Your task to perform on an android device: open app "Truecaller" (install if not already installed) Image 0: 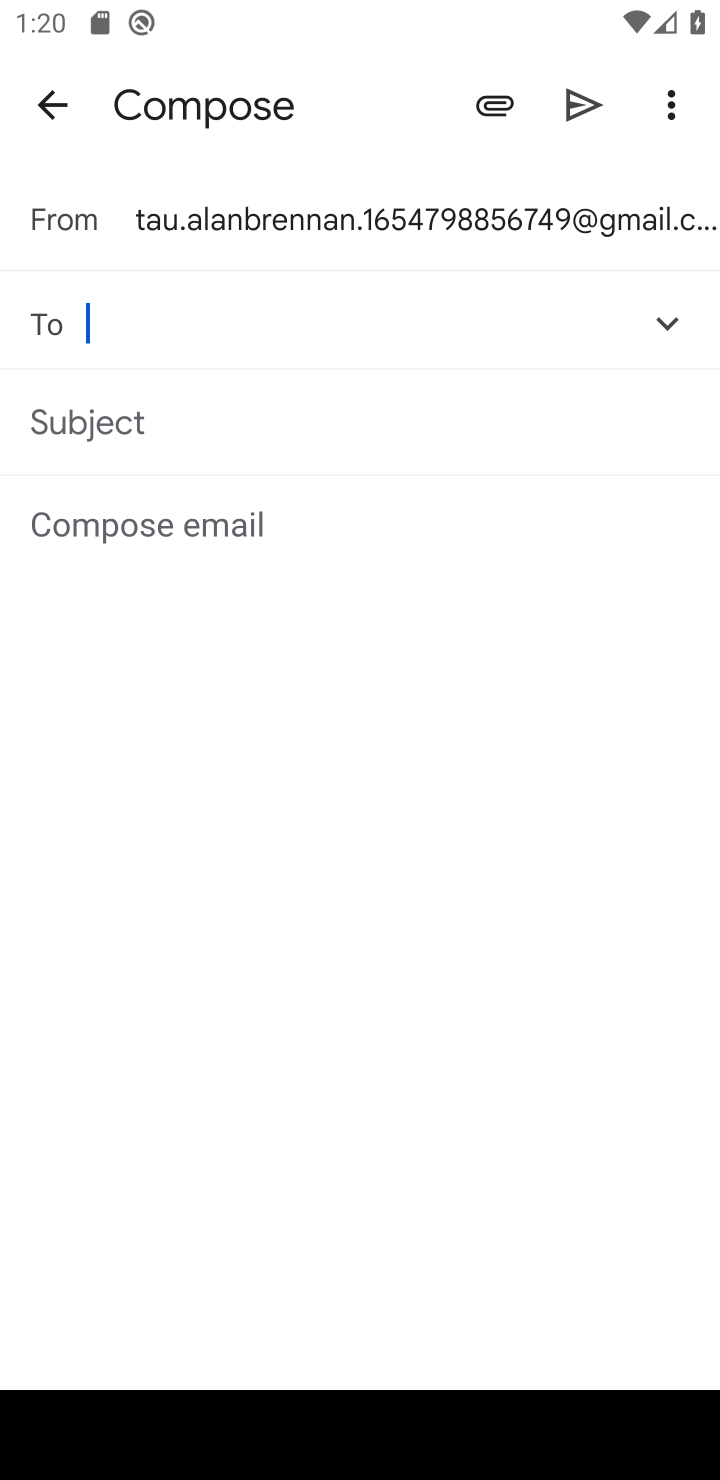
Step 0: press home button
Your task to perform on an android device: open app "Truecaller" (install if not already installed) Image 1: 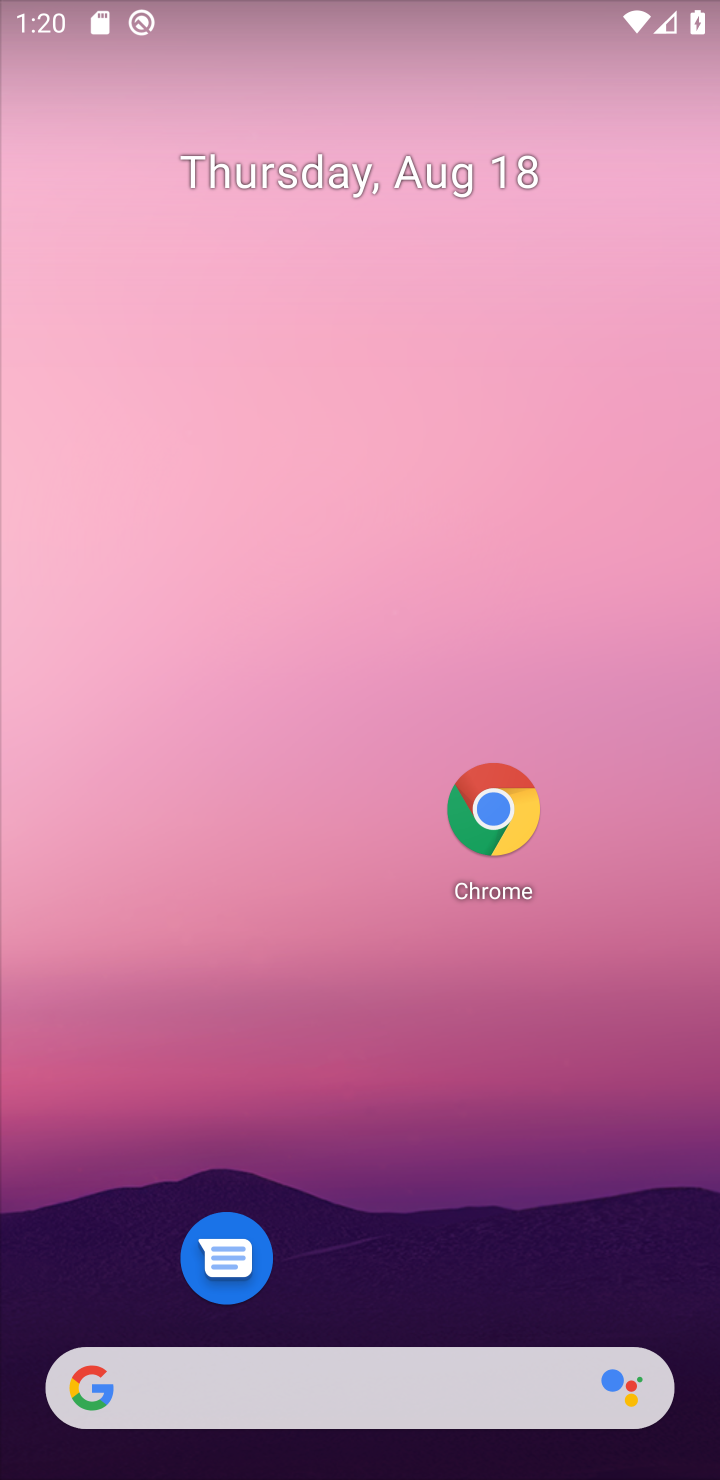
Step 1: drag from (394, 1176) to (417, 280)
Your task to perform on an android device: open app "Truecaller" (install if not already installed) Image 2: 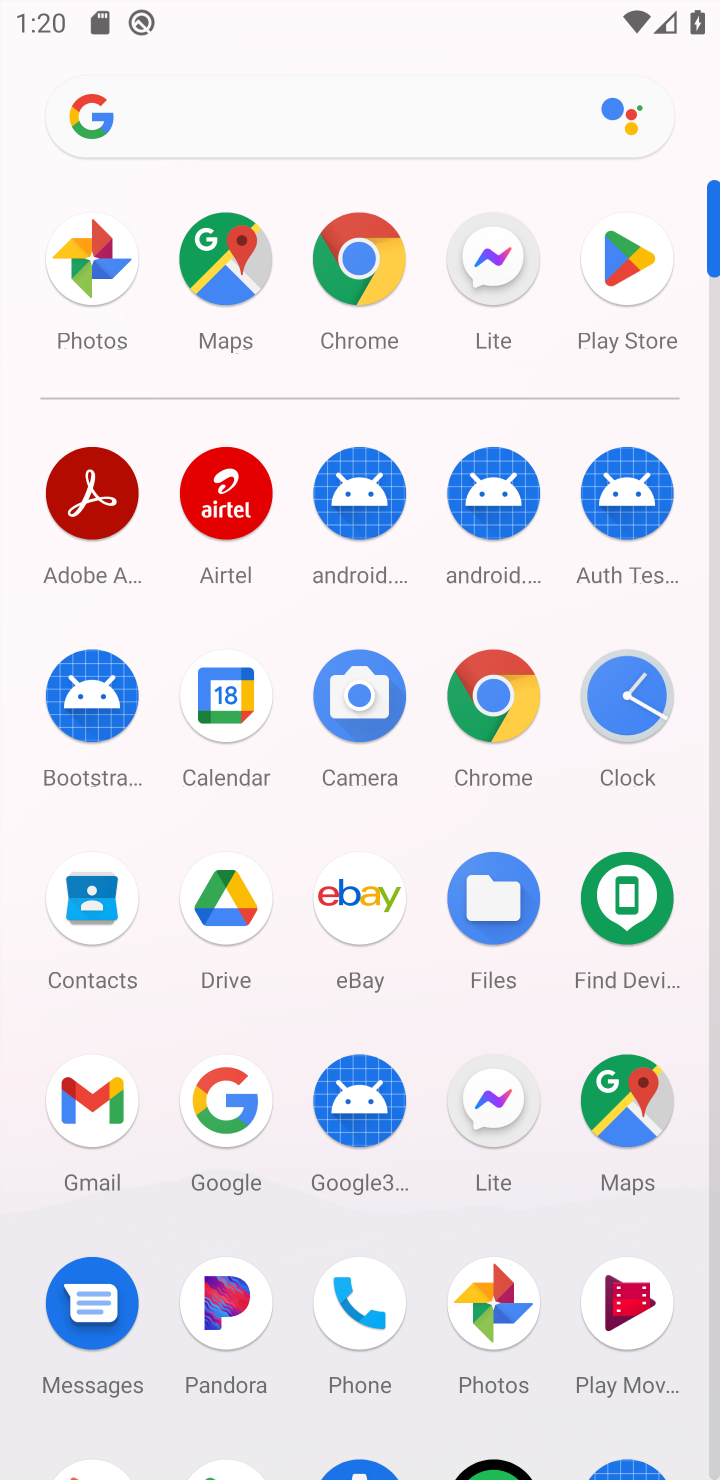
Step 2: click (636, 248)
Your task to perform on an android device: open app "Truecaller" (install if not already installed) Image 3: 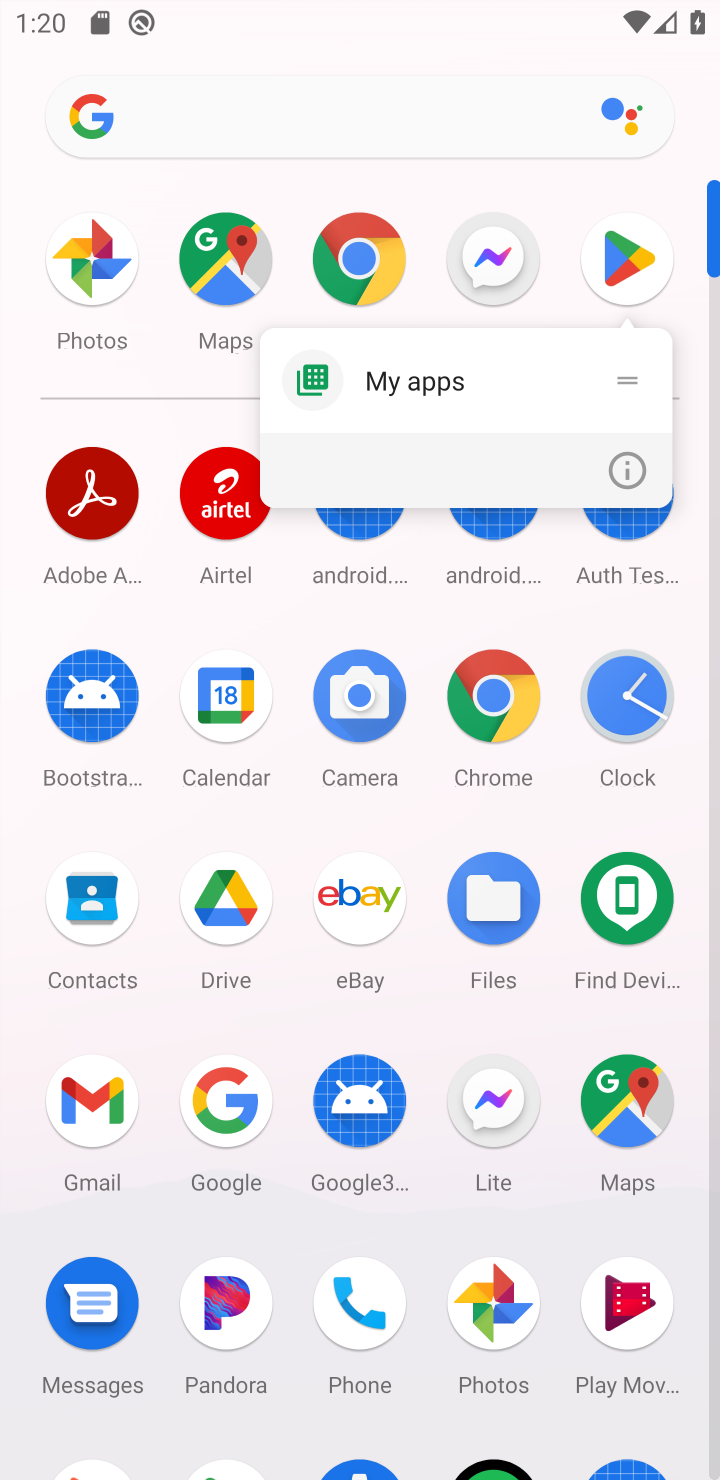
Step 3: click (617, 283)
Your task to perform on an android device: open app "Truecaller" (install if not already installed) Image 4: 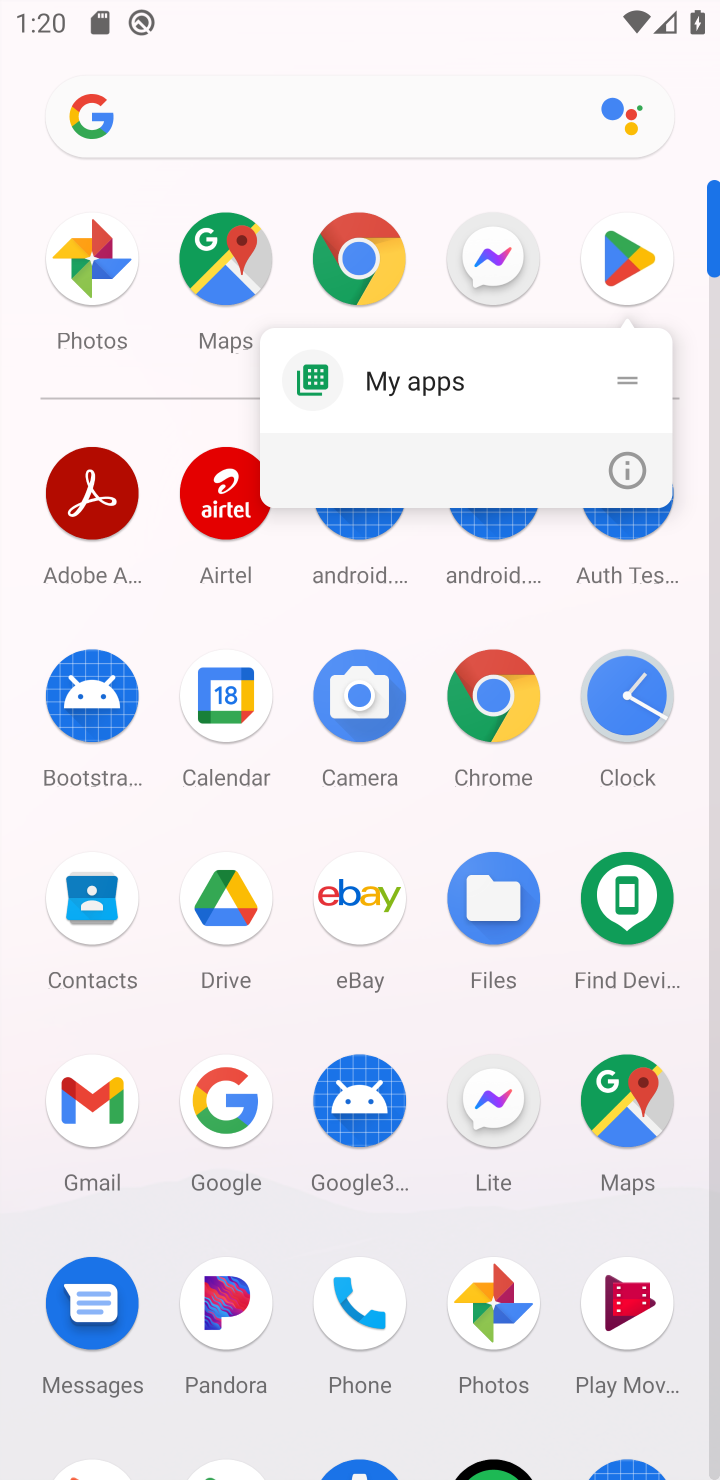
Step 4: drag from (259, 1326) to (324, 424)
Your task to perform on an android device: open app "Truecaller" (install if not already installed) Image 5: 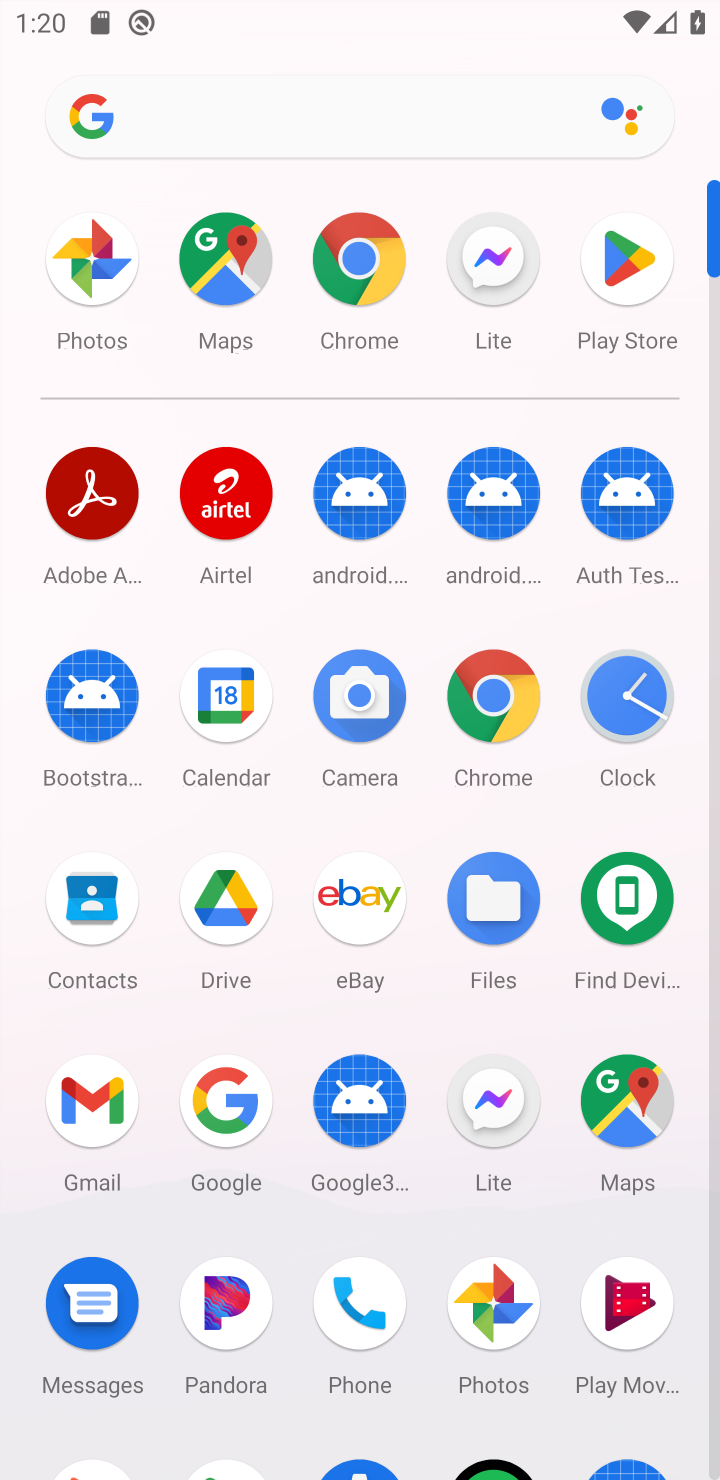
Step 5: drag from (291, 1294) to (314, 480)
Your task to perform on an android device: open app "Truecaller" (install if not already installed) Image 6: 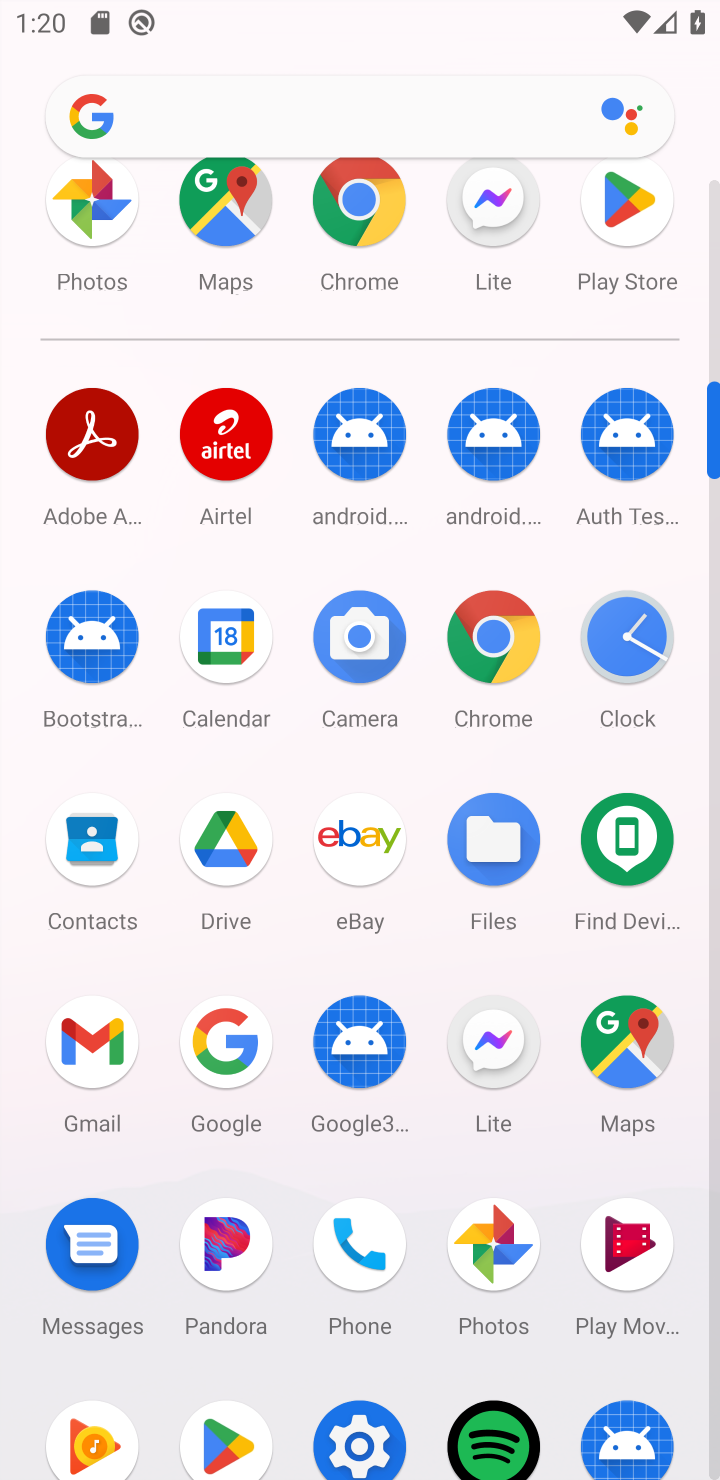
Step 6: click (202, 1445)
Your task to perform on an android device: open app "Truecaller" (install if not already installed) Image 7: 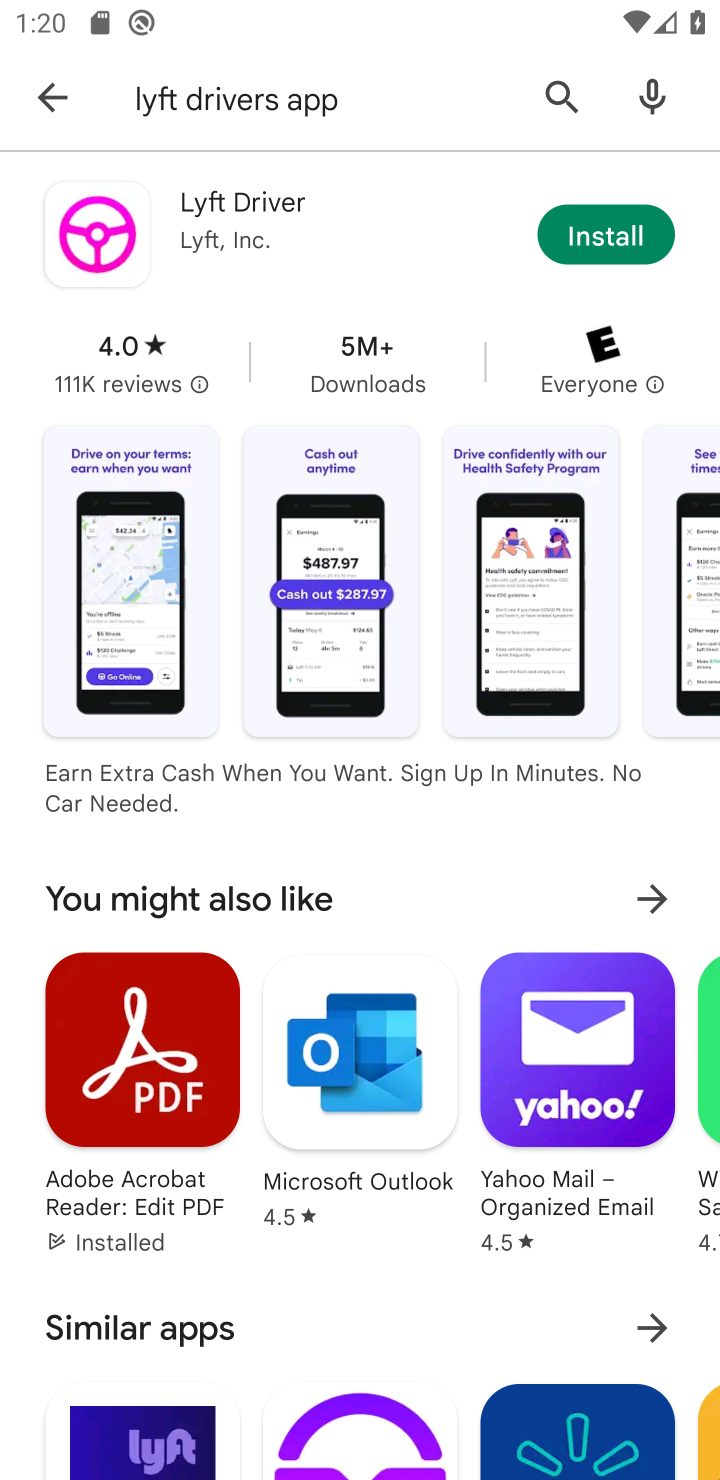
Step 7: click (43, 75)
Your task to perform on an android device: open app "Truecaller" (install if not already installed) Image 8: 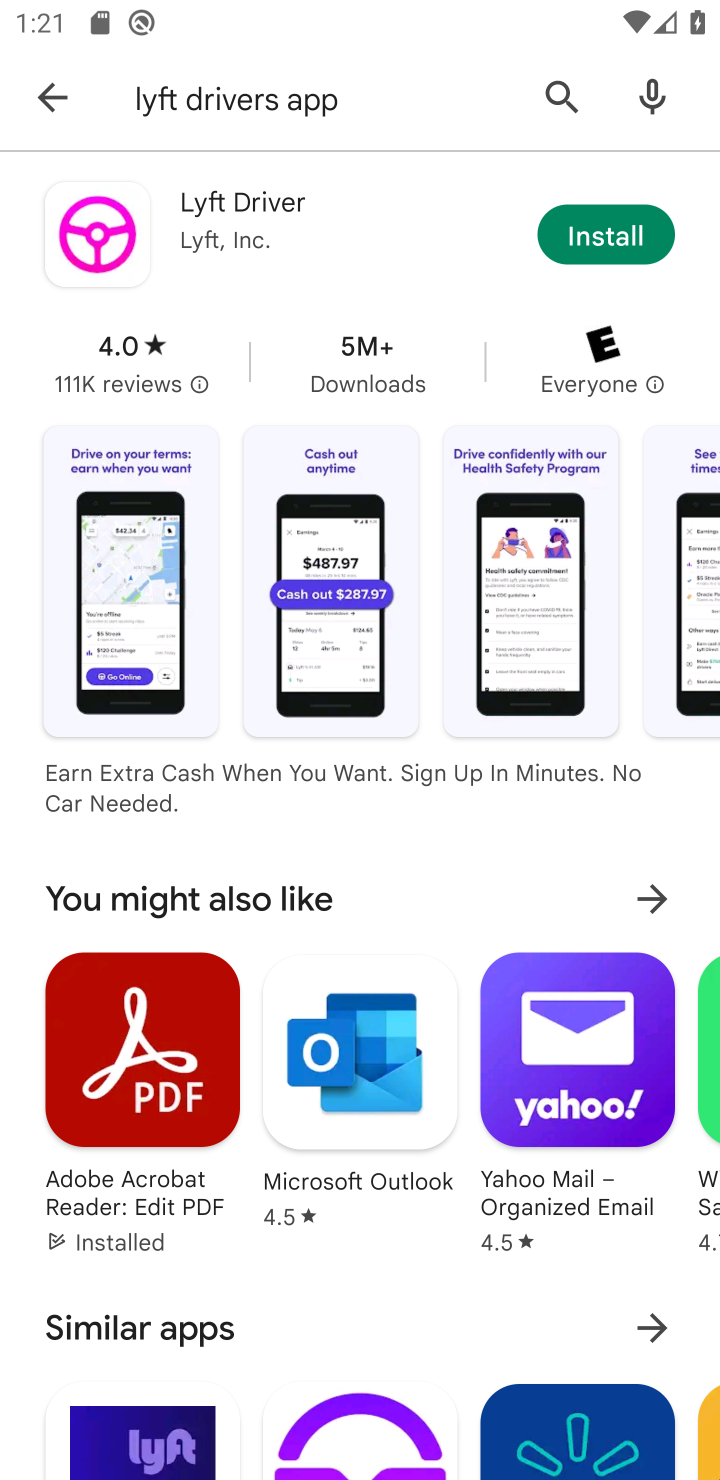
Step 8: click (564, 72)
Your task to perform on an android device: open app "Truecaller" (install if not already installed) Image 9: 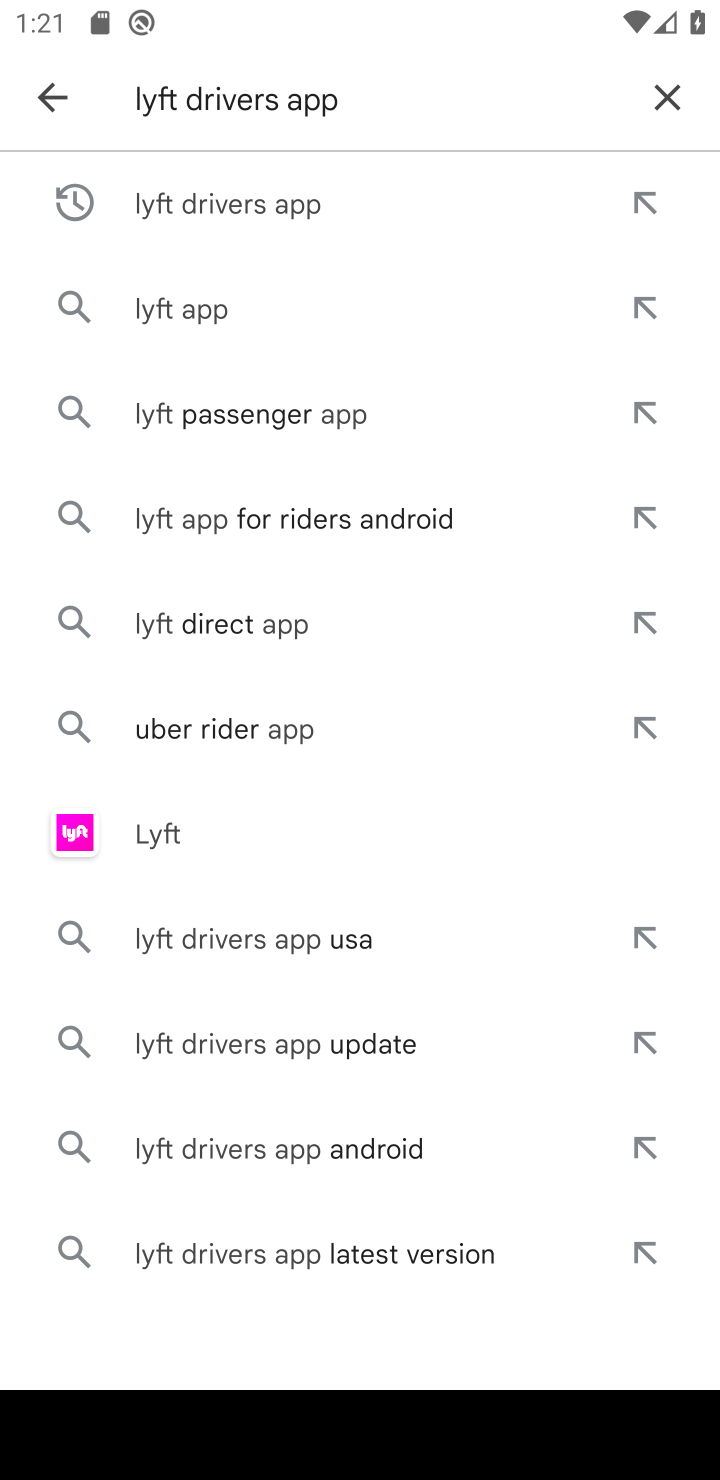
Step 9: click (645, 93)
Your task to perform on an android device: open app "Truecaller" (install if not already installed) Image 10: 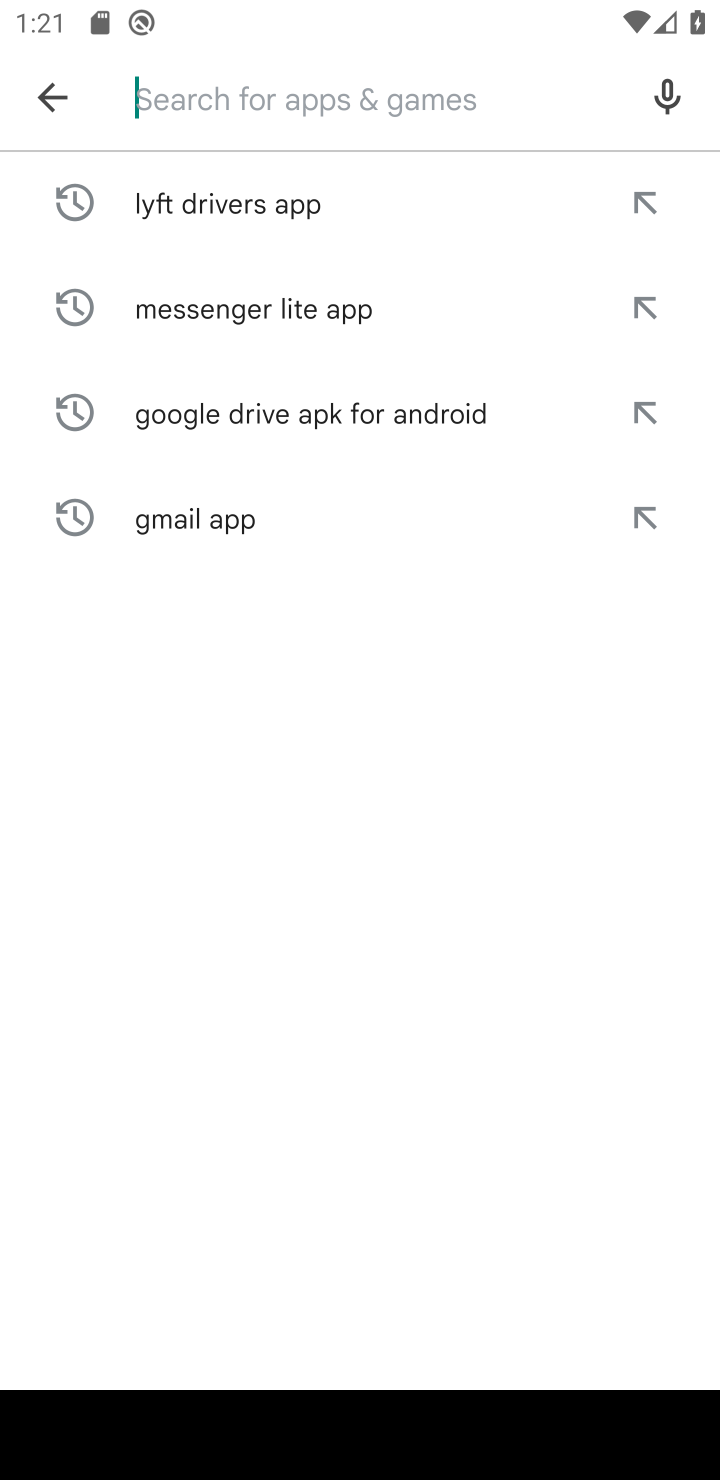
Step 10: click (374, 96)
Your task to perform on an android device: open app "Truecaller" (install if not already installed) Image 11: 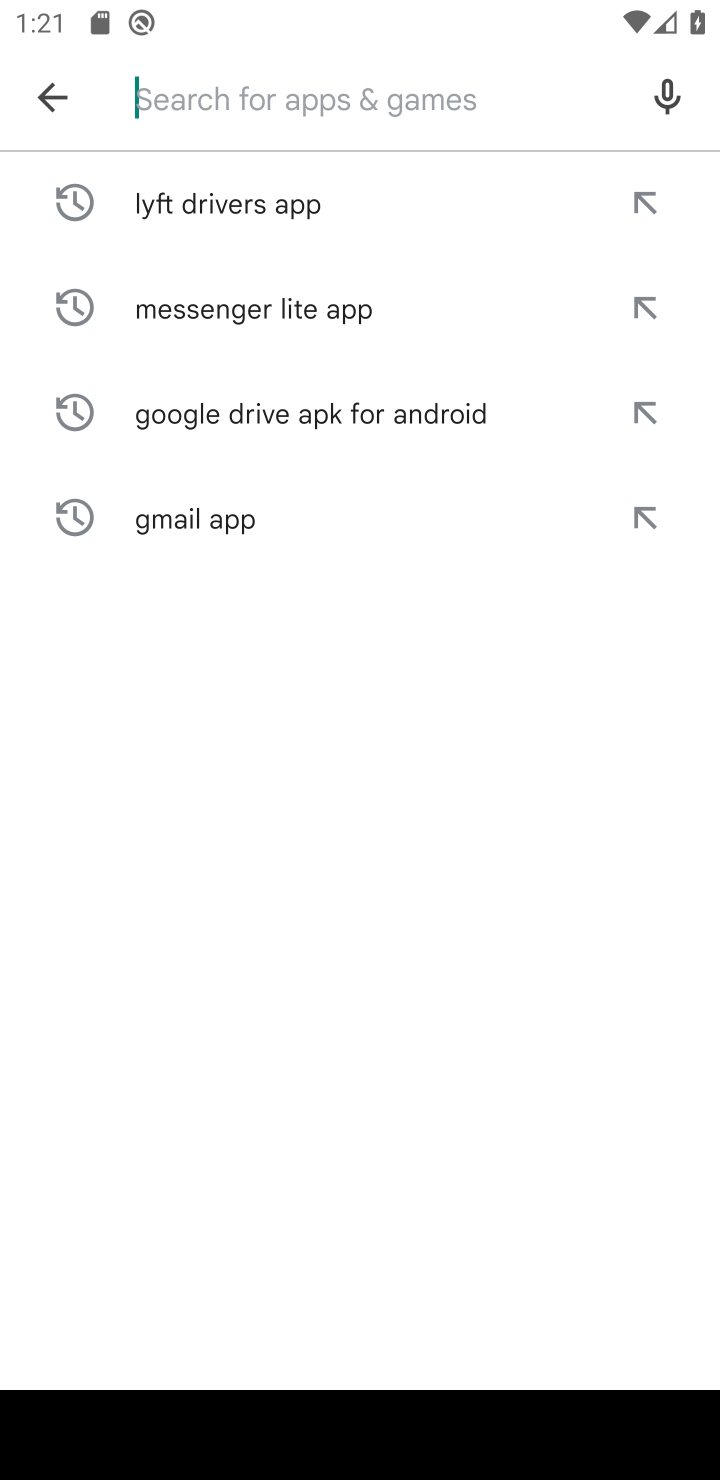
Step 11: type "Truecaller "
Your task to perform on an android device: open app "Truecaller" (install if not already installed) Image 12: 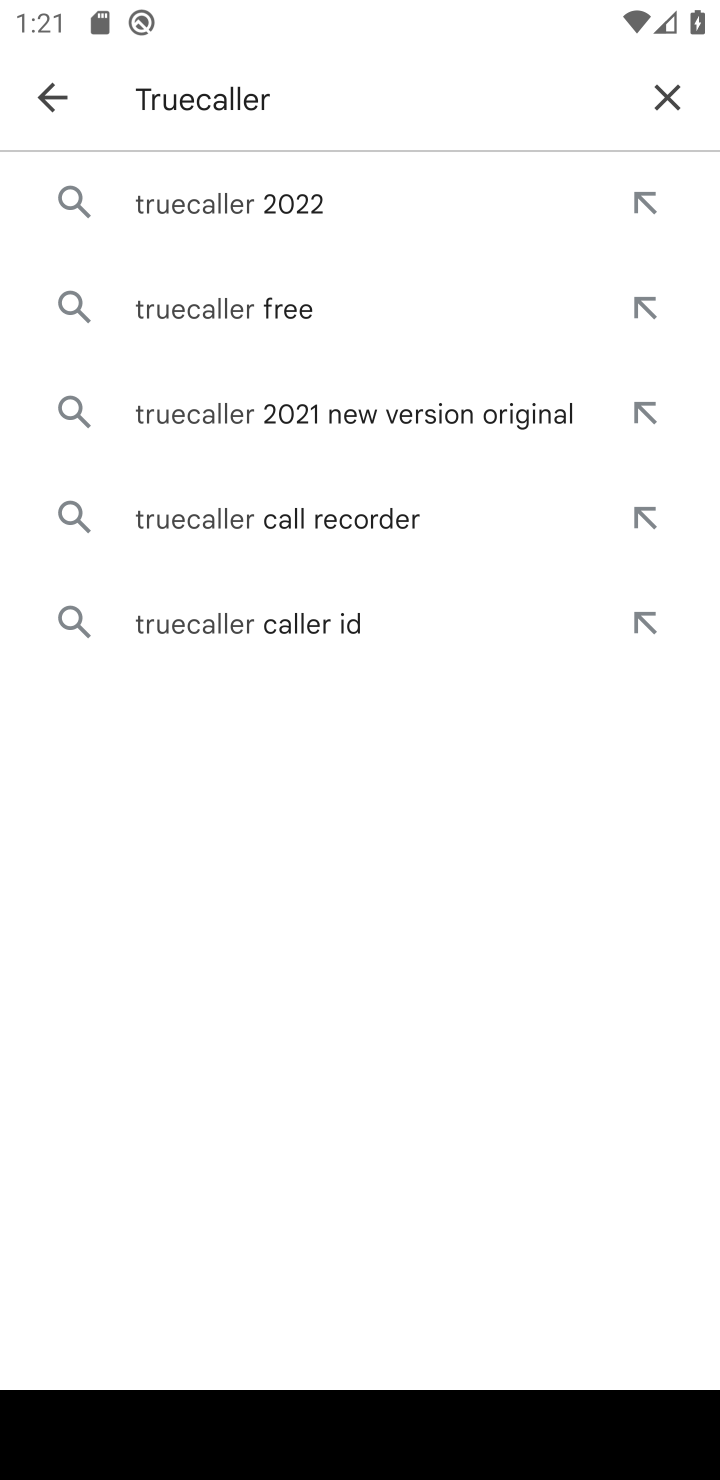
Step 12: click (219, 188)
Your task to perform on an android device: open app "Truecaller" (install if not already installed) Image 13: 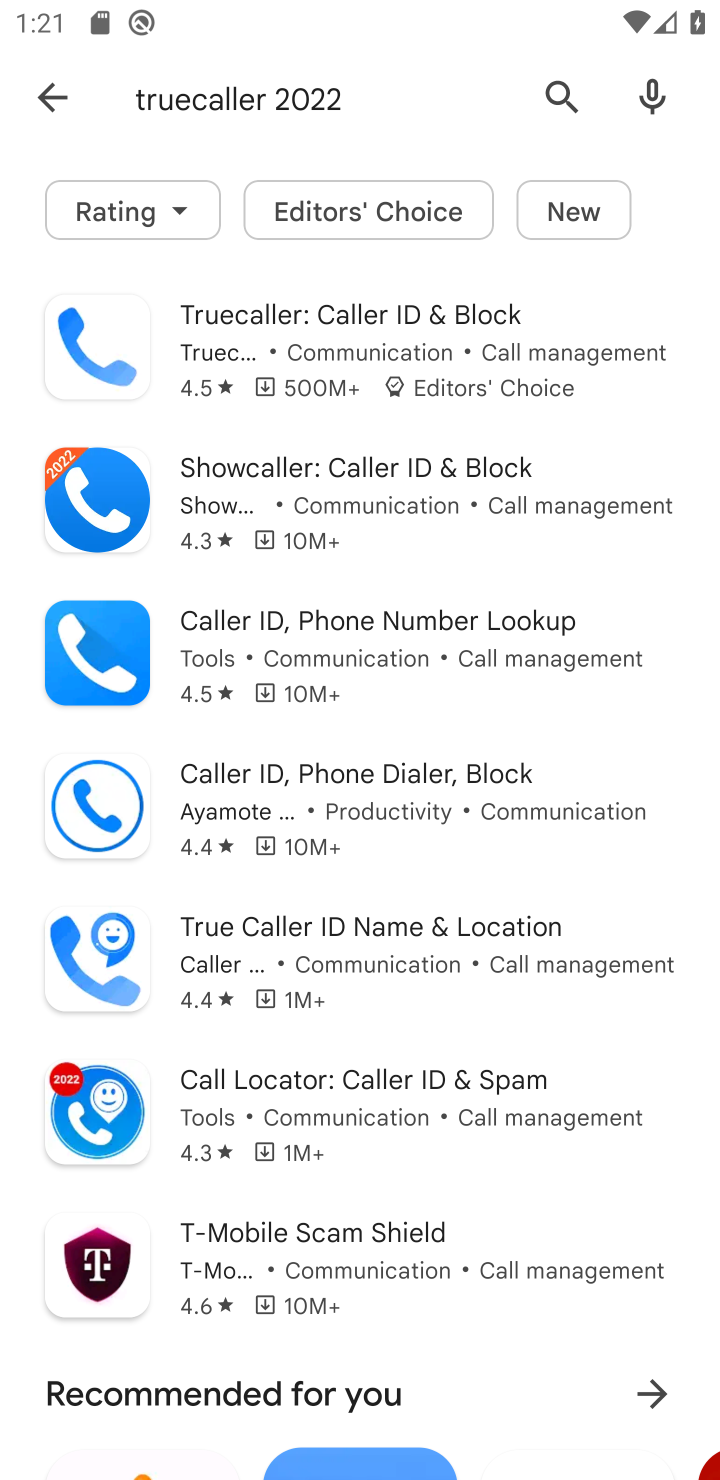
Step 13: click (271, 304)
Your task to perform on an android device: open app "Truecaller" (install if not already installed) Image 14: 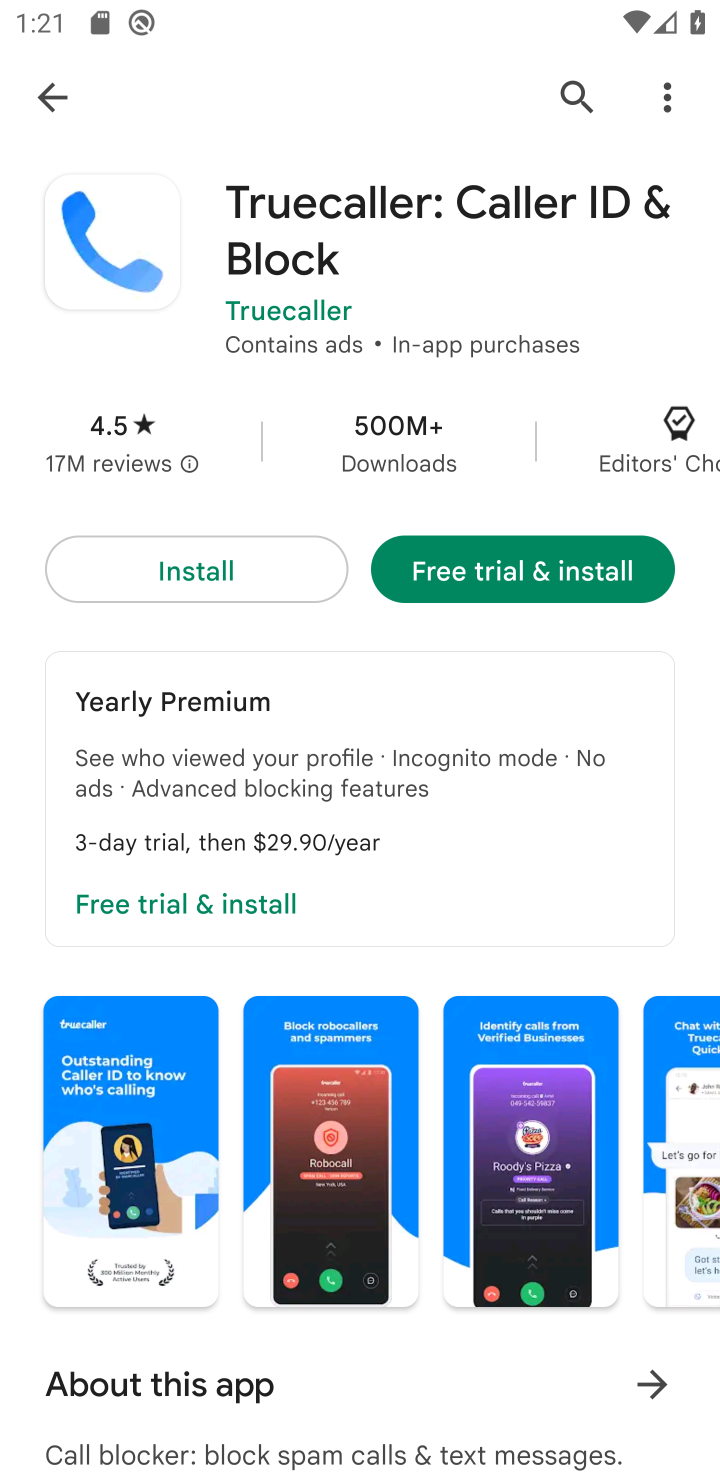
Step 14: click (236, 571)
Your task to perform on an android device: open app "Truecaller" (install if not already installed) Image 15: 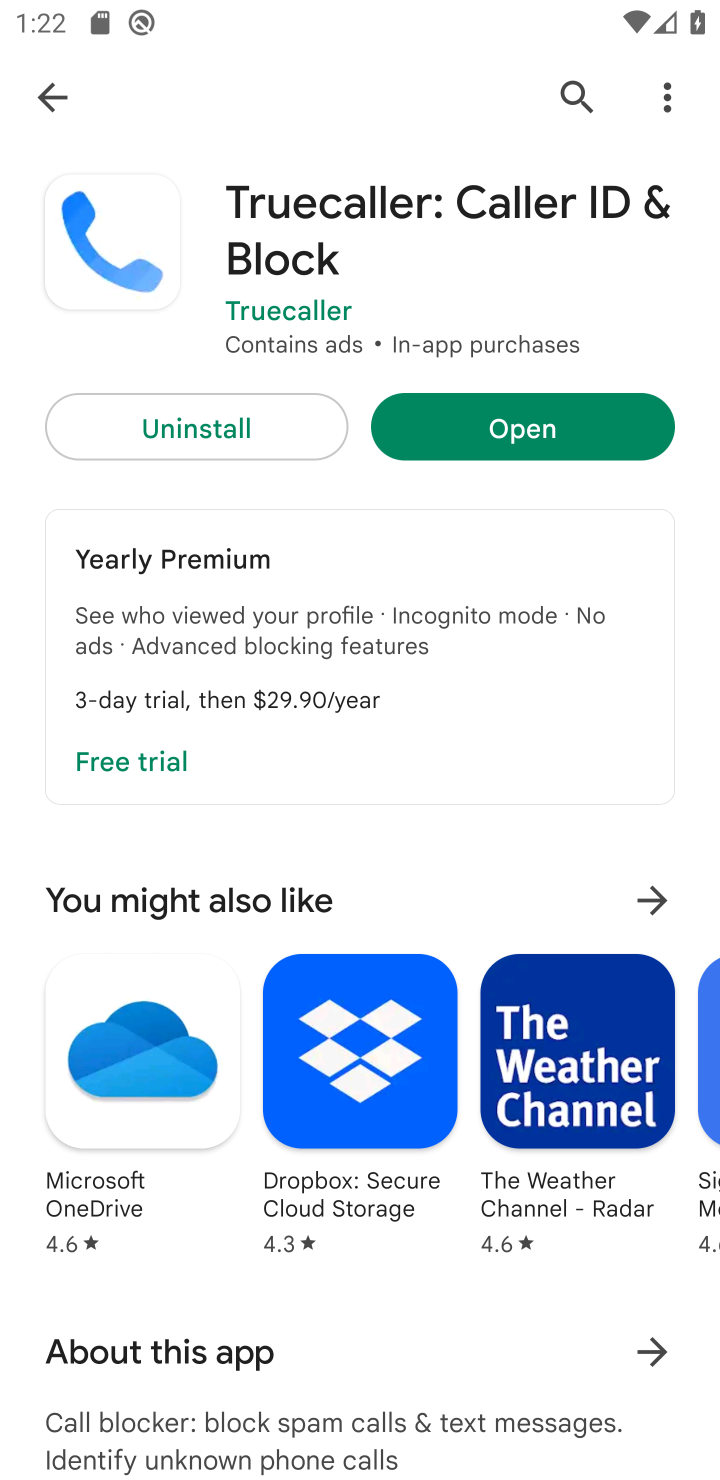
Step 15: click (533, 407)
Your task to perform on an android device: open app "Truecaller" (install if not already installed) Image 16: 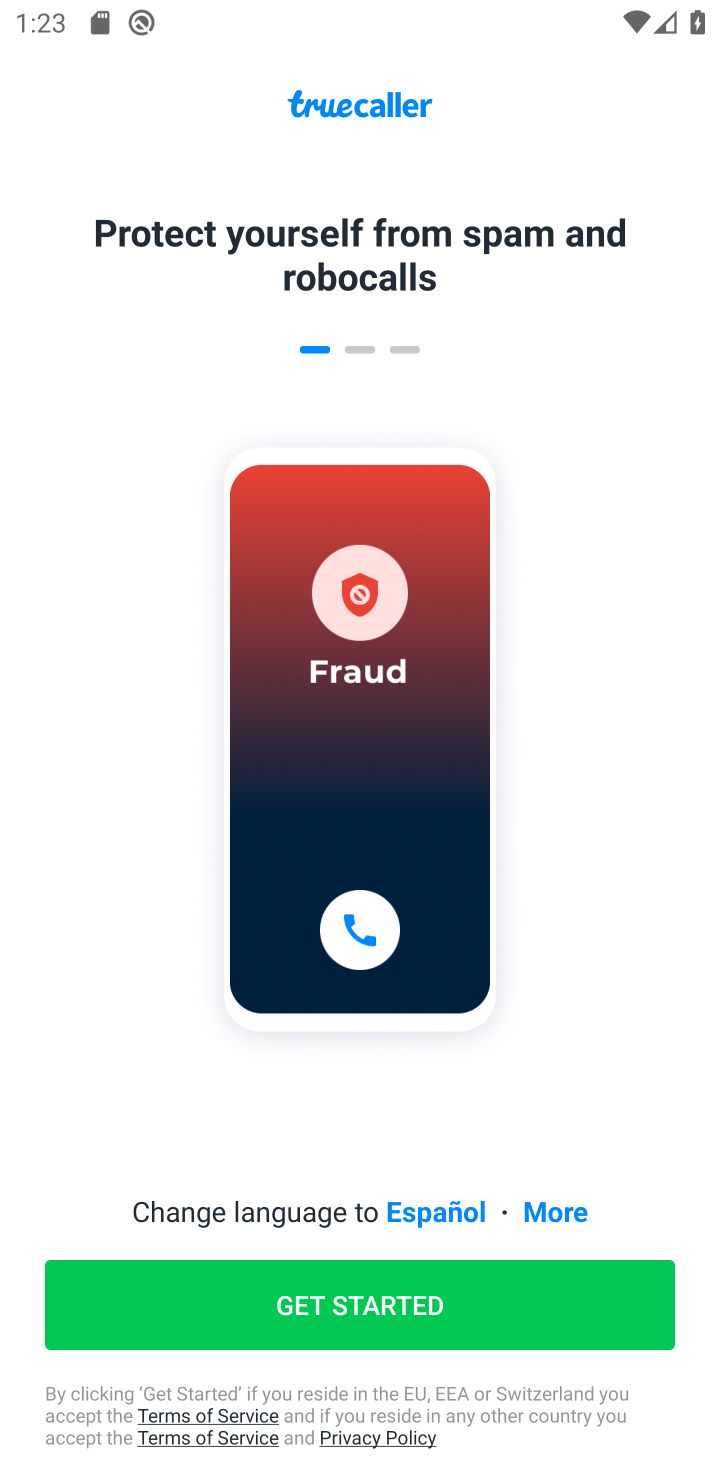
Step 16: task complete